Your task to perform on an android device: stop showing notifications on the lock screen Image 0: 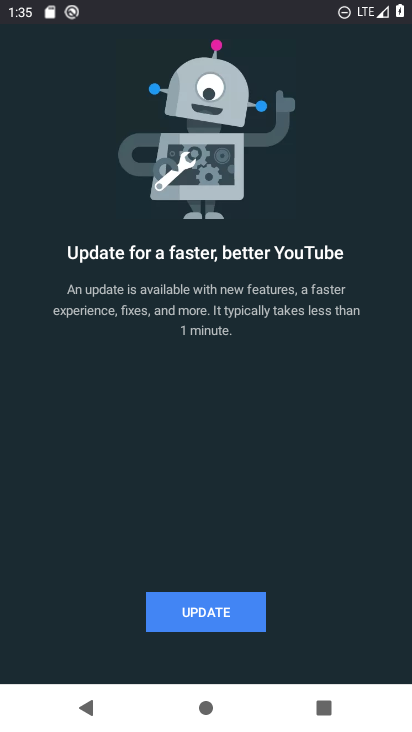
Step 0: press home button
Your task to perform on an android device: stop showing notifications on the lock screen Image 1: 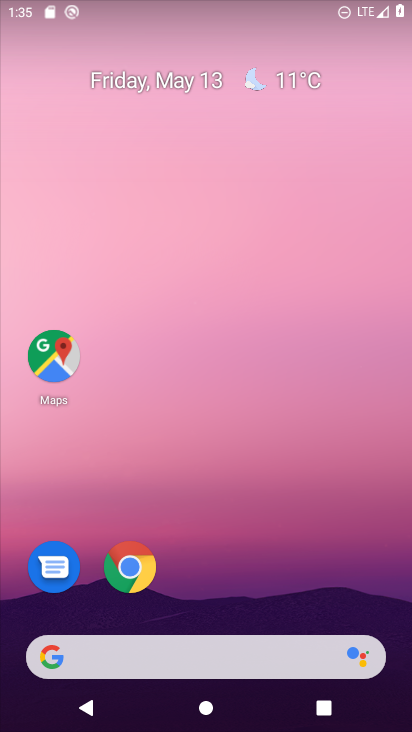
Step 1: drag from (208, 564) to (201, 68)
Your task to perform on an android device: stop showing notifications on the lock screen Image 2: 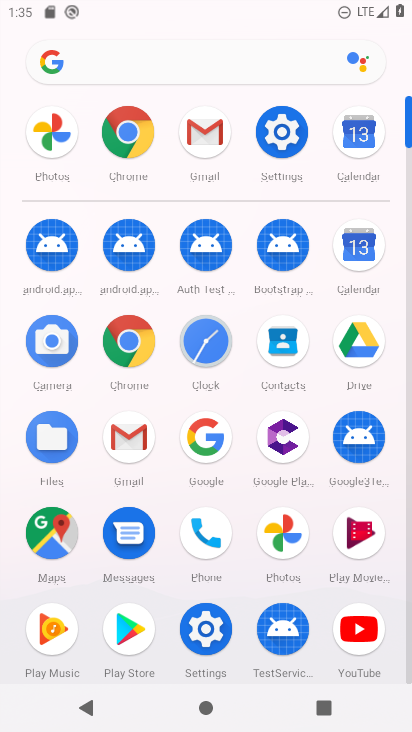
Step 2: click (280, 126)
Your task to perform on an android device: stop showing notifications on the lock screen Image 3: 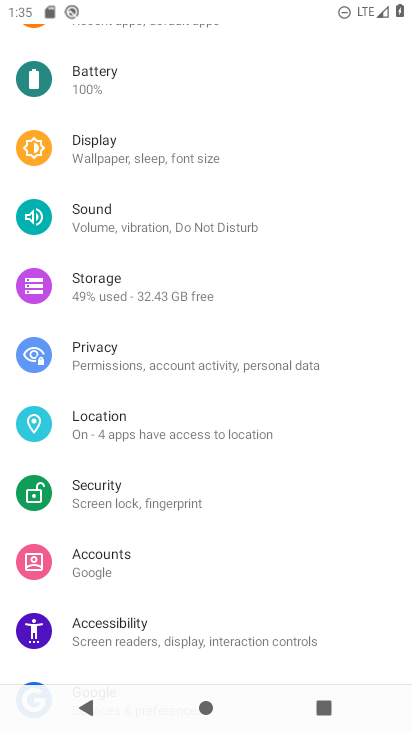
Step 3: drag from (130, 108) to (155, 463)
Your task to perform on an android device: stop showing notifications on the lock screen Image 4: 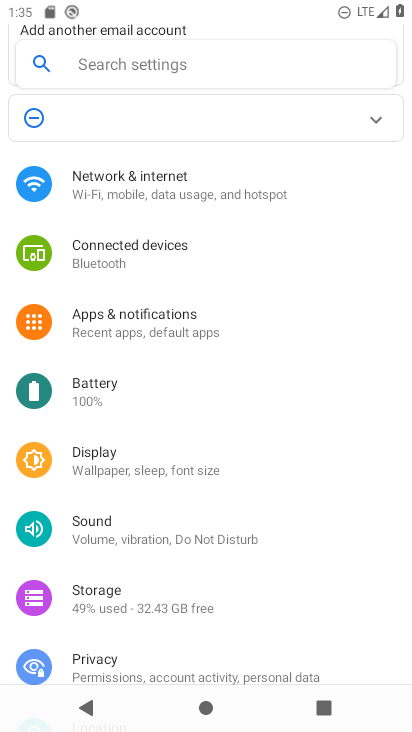
Step 4: click (205, 322)
Your task to perform on an android device: stop showing notifications on the lock screen Image 5: 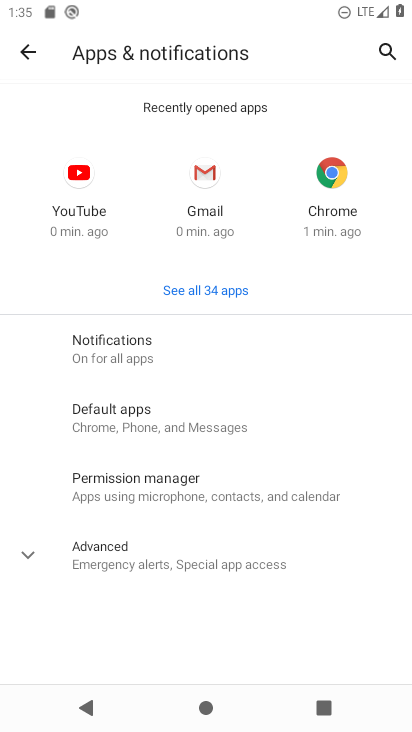
Step 5: click (159, 346)
Your task to perform on an android device: stop showing notifications on the lock screen Image 6: 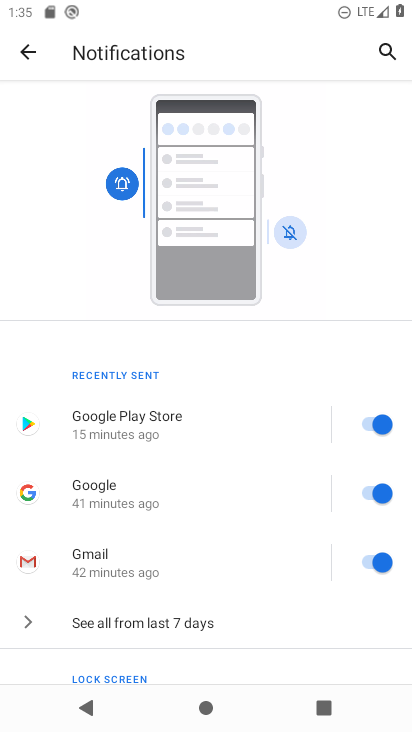
Step 6: drag from (213, 595) to (235, 193)
Your task to perform on an android device: stop showing notifications on the lock screen Image 7: 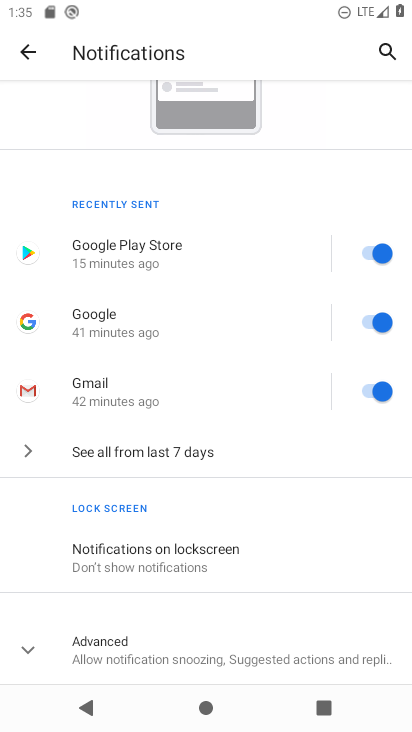
Step 7: click (231, 558)
Your task to perform on an android device: stop showing notifications on the lock screen Image 8: 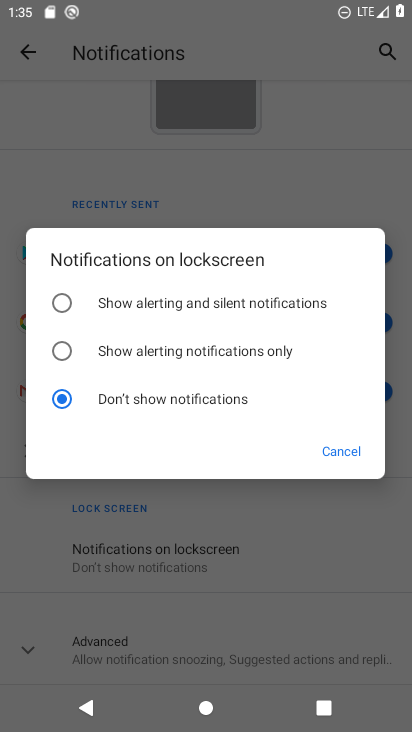
Step 8: click (74, 397)
Your task to perform on an android device: stop showing notifications on the lock screen Image 9: 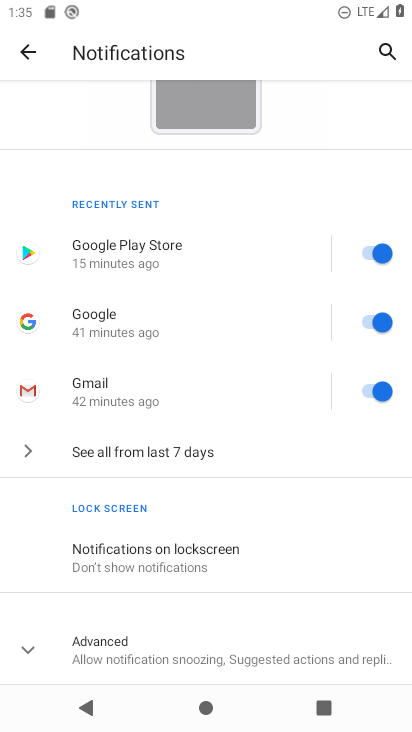
Step 9: task complete